Your task to perform on an android device: Go to Reddit.com Image 0: 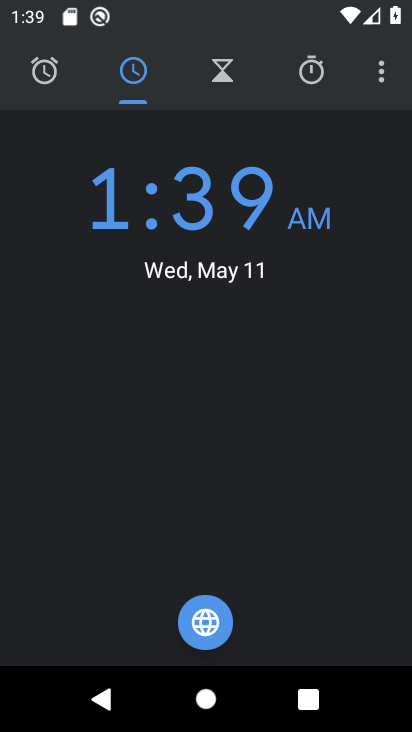
Step 0: press back button
Your task to perform on an android device: Go to Reddit.com Image 1: 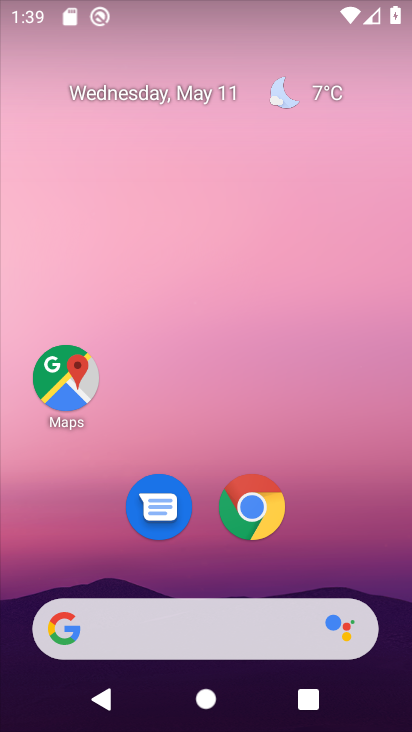
Step 1: drag from (342, 554) to (291, 47)
Your task to perform on an android device: Go to Reddit.com Image 2: 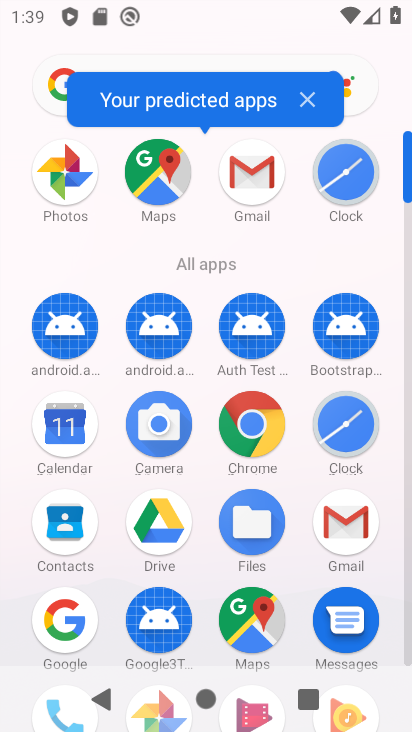
Step 2: click (250, 420)
Your task to perform on an android device: Go to Reddit.com Image 3: 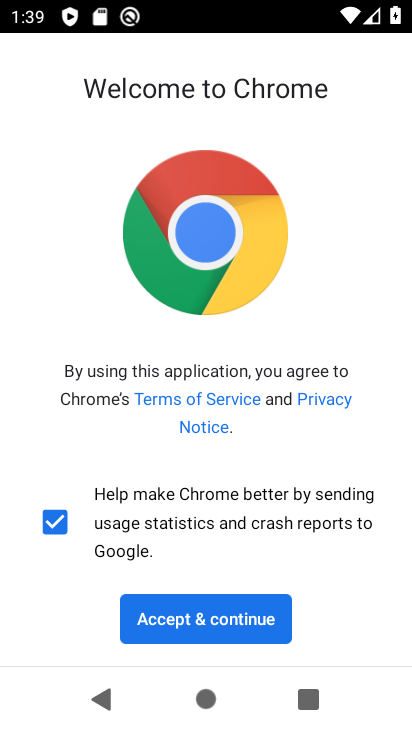
Step 3: click (213, 619)
Your task to perform on an android device: Go to Reddit.com Image 4: 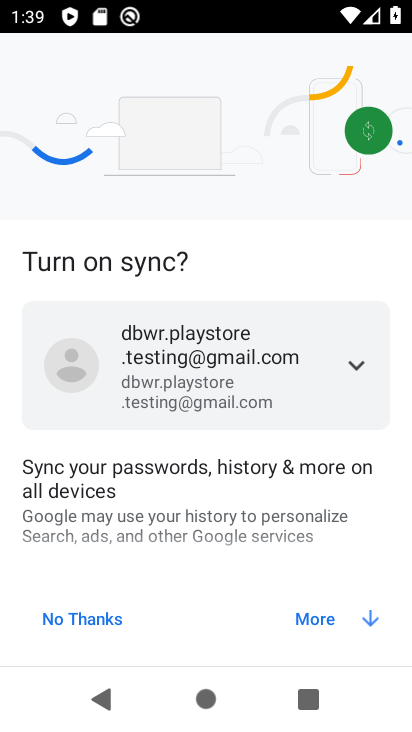
Step 4: click (307, 615)
Your task to perform on an android device: Go to Reddit.com Image 5: 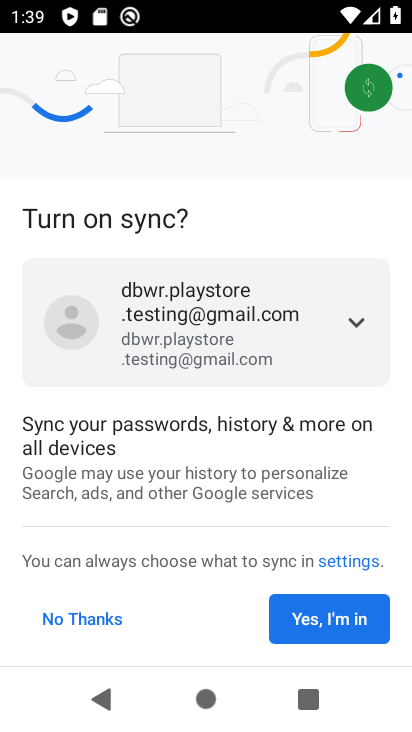
Step 5: click (307, 615)
Your task to perform on an android device: Go to Reddit.com Image 6: 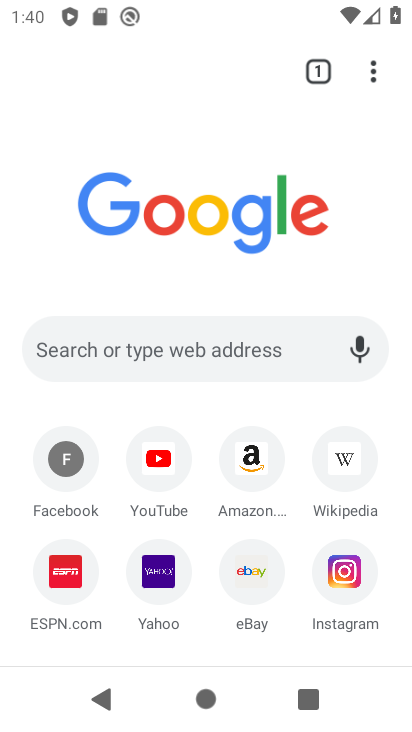
Step 6: click (225, 352)
Your task to perform on an android device: Go to Reddit.com Image 7: 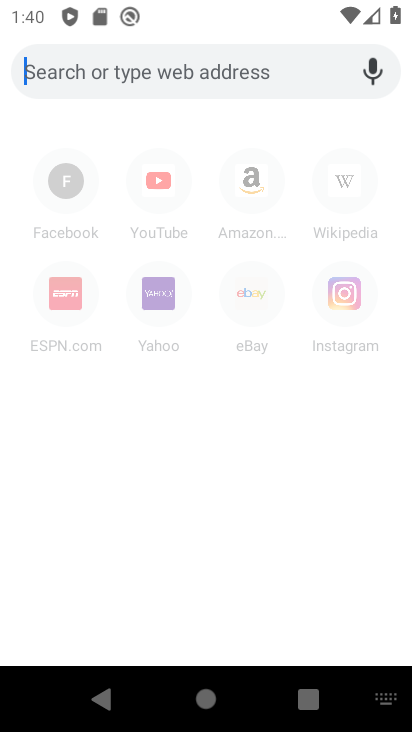
Step 7: type "Reddit.com"
Your task to perform on an android device: Go to Reddit.com Image 8: 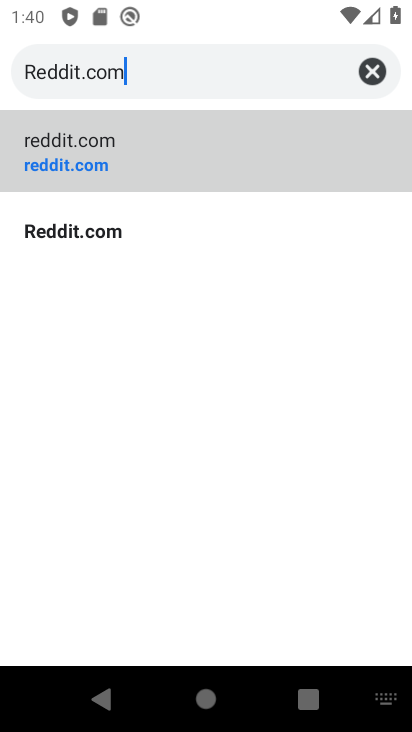
Step 8: type ""
Your task to perform on an android device: Go to Reddit.com Image 9: 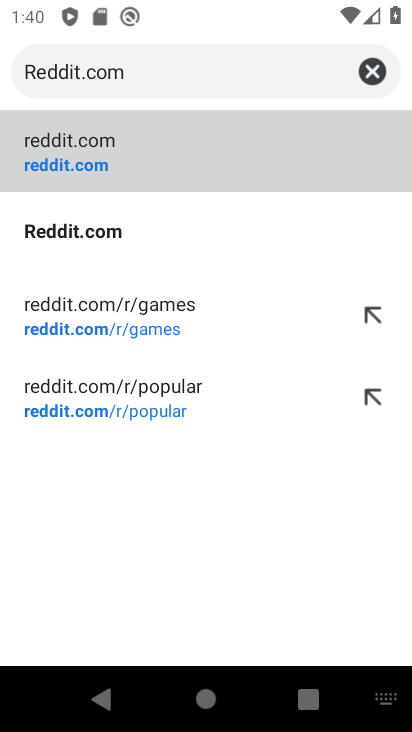
Step 9: click (141, 154)
Your task to perform on an android device: Go to Reddit.com Image 10: 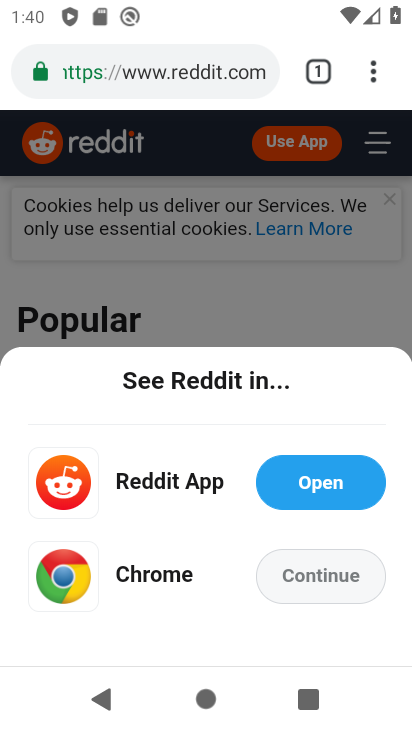
Step 10: task complete